Your task to perform on an android device: toggle sleep mode Image 0: 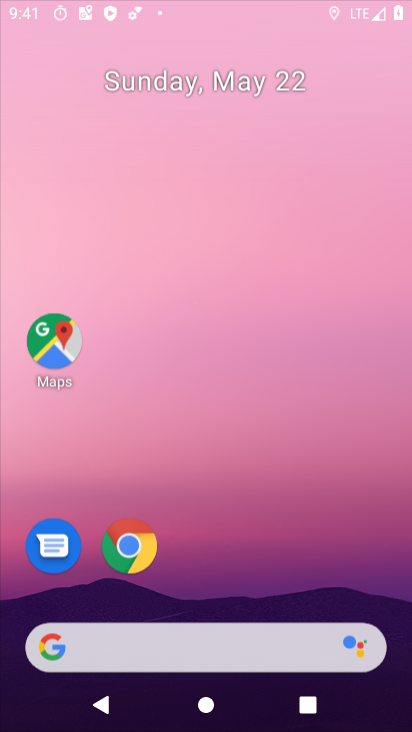
Step 0: drag from (251, 97) to (304, 14)
Your task to perform on an android device: toggle sleep mode Image 1: 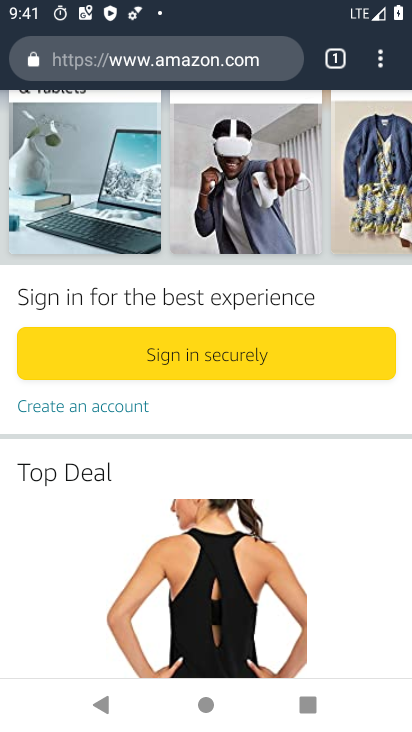
Step 1: press home button
Your task to perform on an android device: toggle sleep mode Image 2: 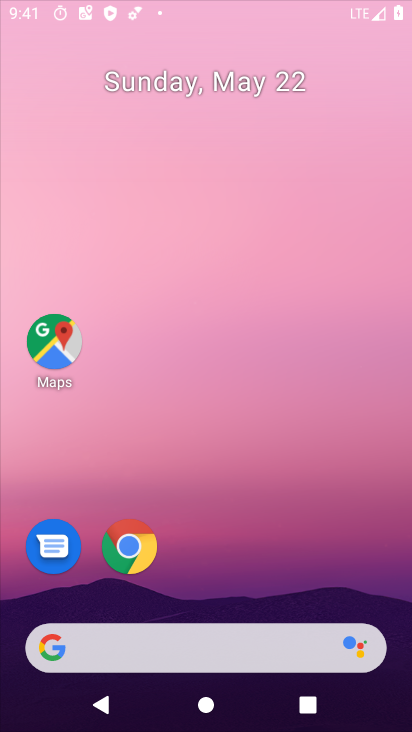
Step 2: drag from (132, 630) to (270, 0)
Your task to perform on an android device: toggle sleep mode Image 3: 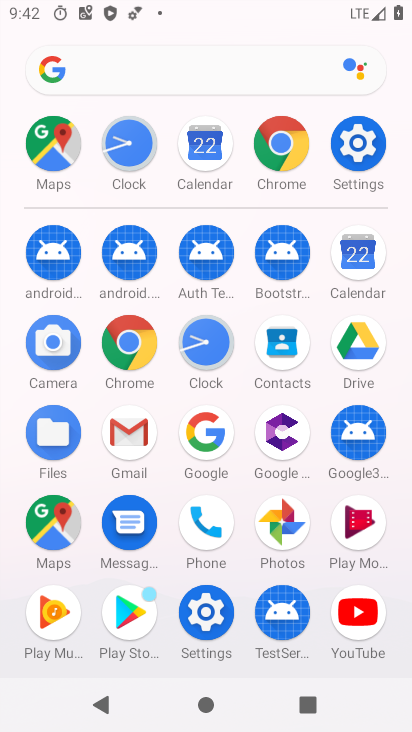
Step 3: click (366, 134)
Your task to perform on an android device: toggle sleep mode Image 4: 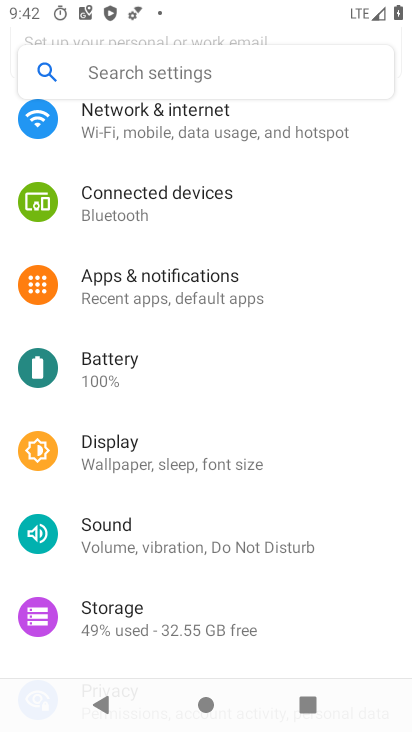
Step 4: drag from (220, 439) to (299, 5)
Your task to perform on an android device: toggle sleep mode Image 5: 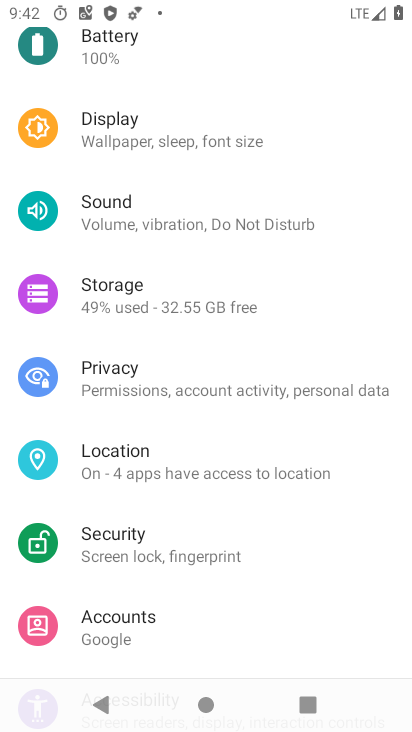
Step 5: click (163, 137)
Your task to perform on an android device: toggle sleep mode Image 6: 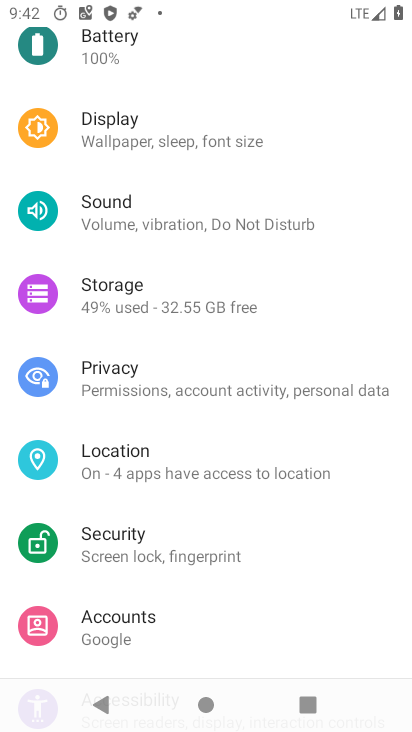
Step 6: click (163, 137)
Your task to perform on an android device: toggle sleep mode Image 7: 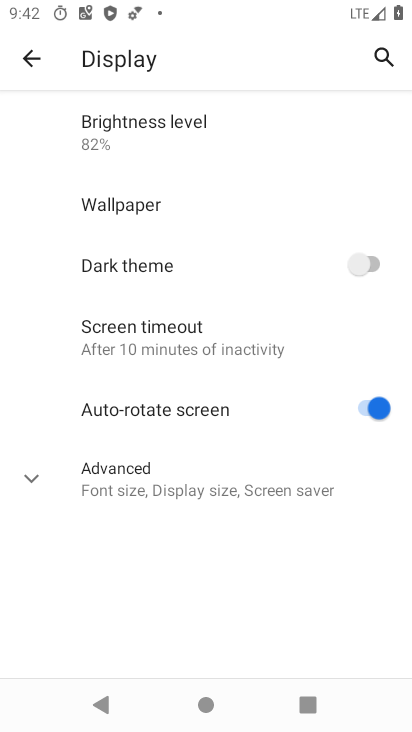
Step 7: click (221, 358)
Your task to perform on an android device: toggle sleep mode Image 8: 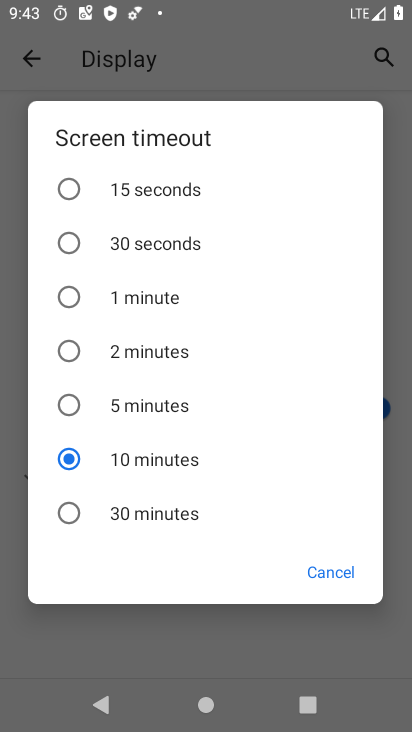
Step 8: task complete